Your task to perform on an android device: Open display settings Image 0: 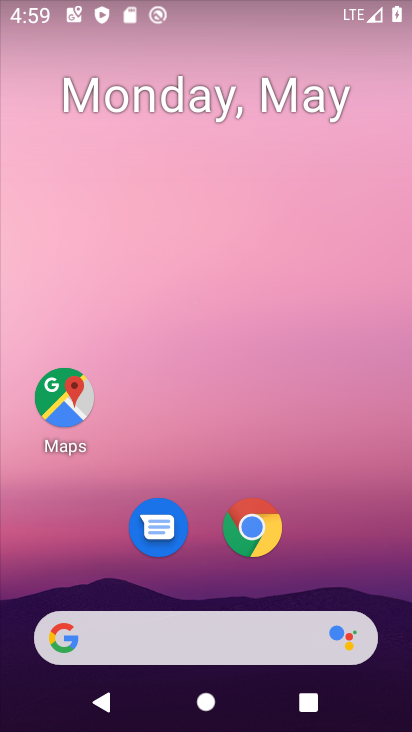
Step 0: drag from (393, 692) to (361, 108)
Your task to perform on an android device: Open display settings Image 1: 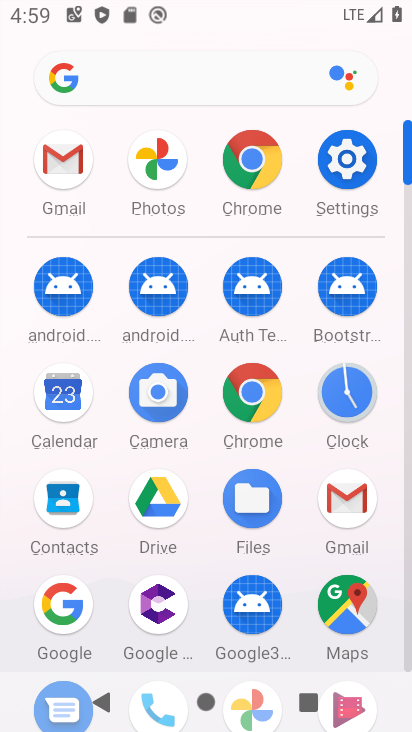
Step 1: click (340, 177)
Your task to perform on an android device: Open display settings Image 2: 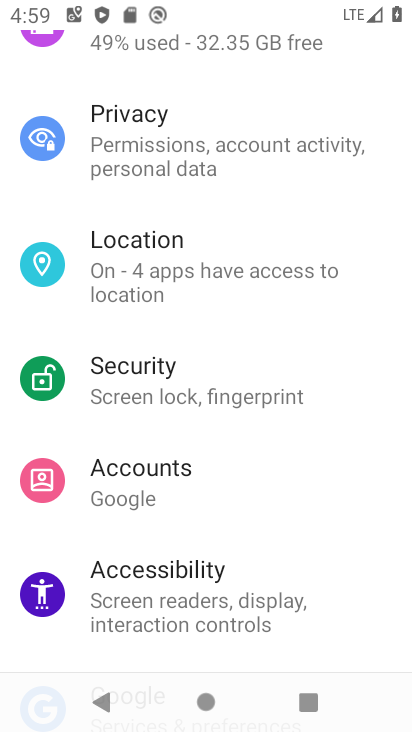
Step 2: drag from (346, 104) to (347, 709)
Your task to perform on an android device: Open display settings Image 3: 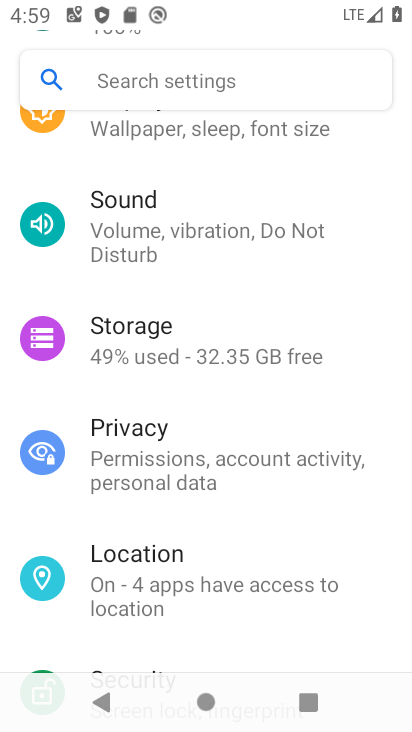
Step 3: drag from (389, 165) to (401, 568)
Your task to perform on an android device: Open display settings Image 4: 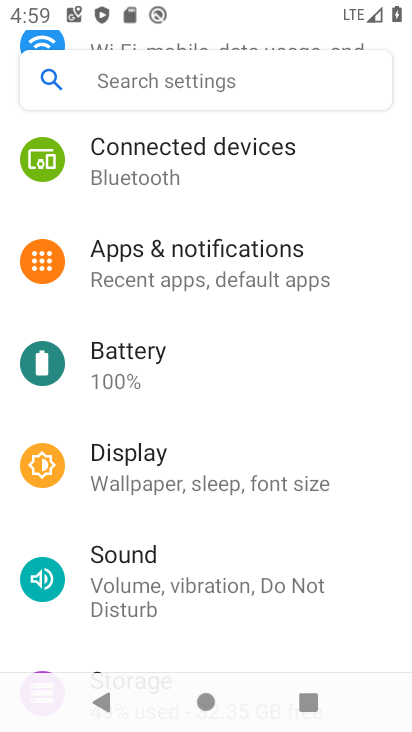
Step 4: click (110, 456)
Your task to perform on an android device: Open display settings Image 5: 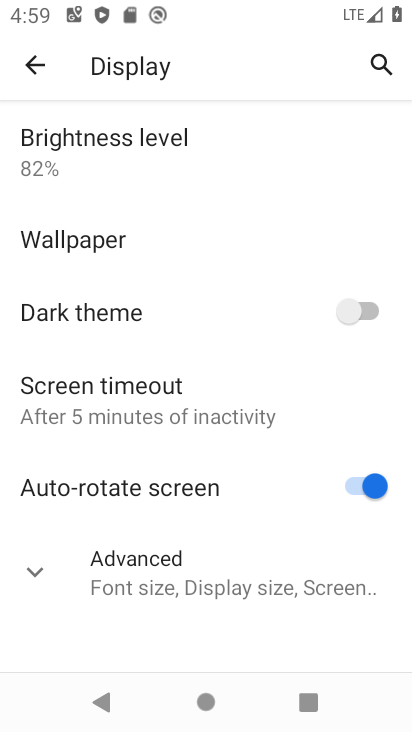
Step 5: task complete